Your task to perform on an android device: Go to privacy settings Image 0: 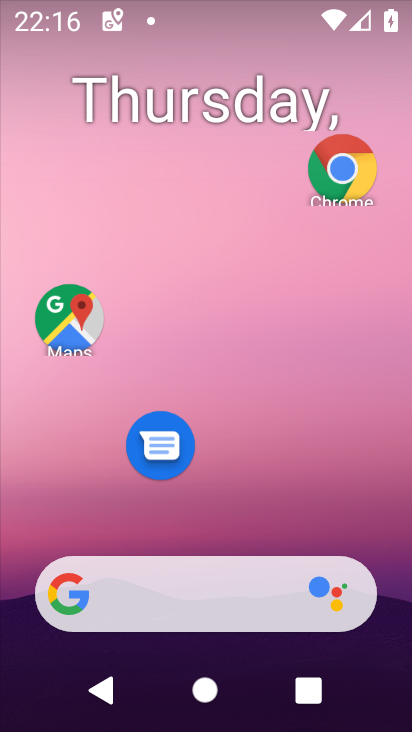
Step 0: drag from (217, 526) to (306, 46)
Your task to perform on an android device: Go to privacy settings Image 1: 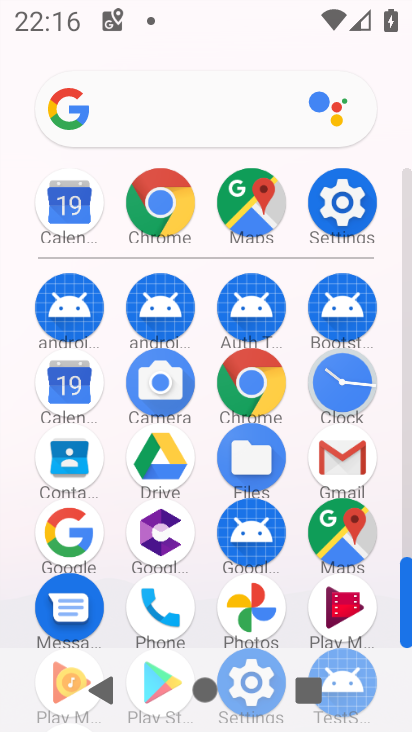
Step 1: click (318, 186)
Your task to perform on an android device: Go to privacy settings Image 2: 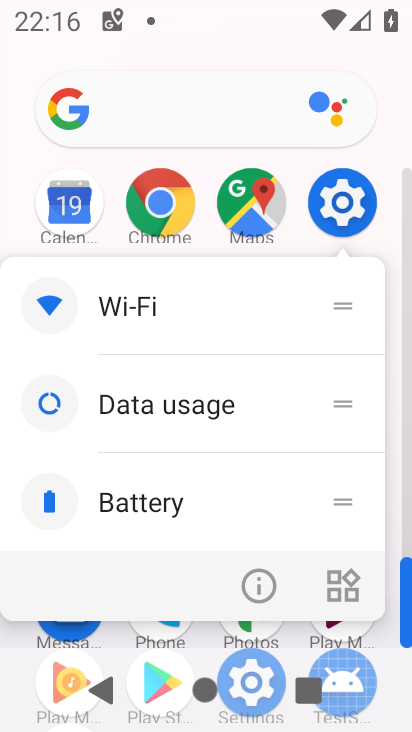
Step 2: click (257, 584)
Your task to perform on an android device: Go to privacy settings Image 3: 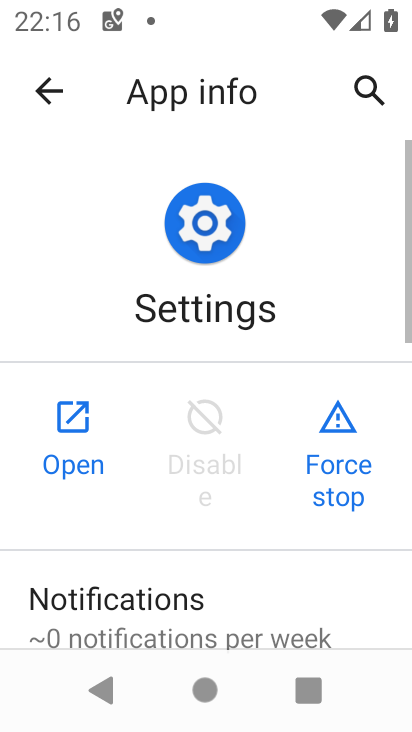
Step 3: click (81, 432)
Your task to perform on an android device: Go to privacy settings Image 4: 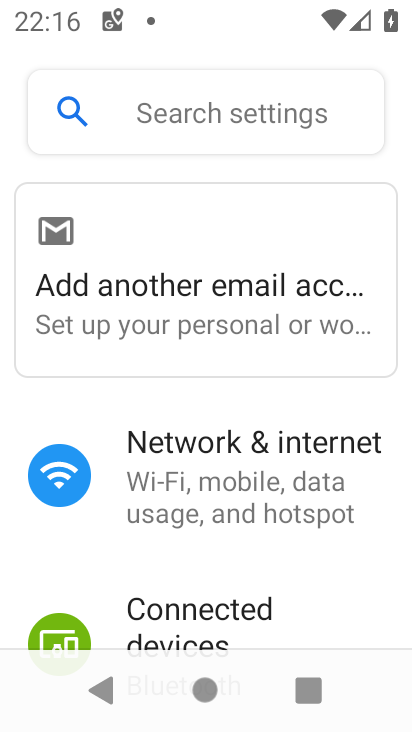
Step 4: drag from (227, 599) to (238, 15)
Your task to perform on an android device: Go to privacy settings Image 5: 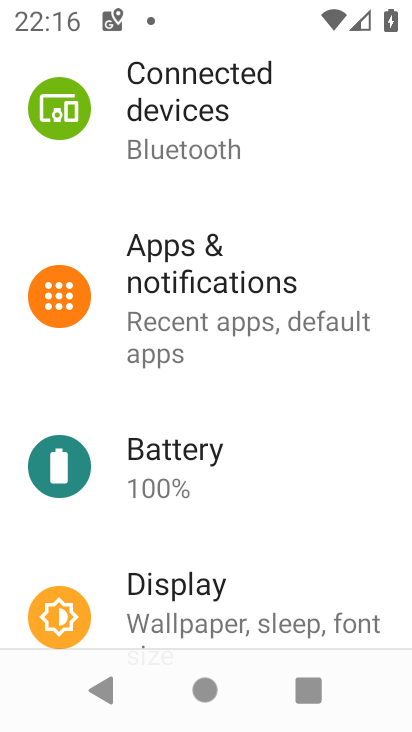
Step 5: drag from (212, 617) to (265, 42)
Your task to perform on an android device: Go to privacy settings Image 6: 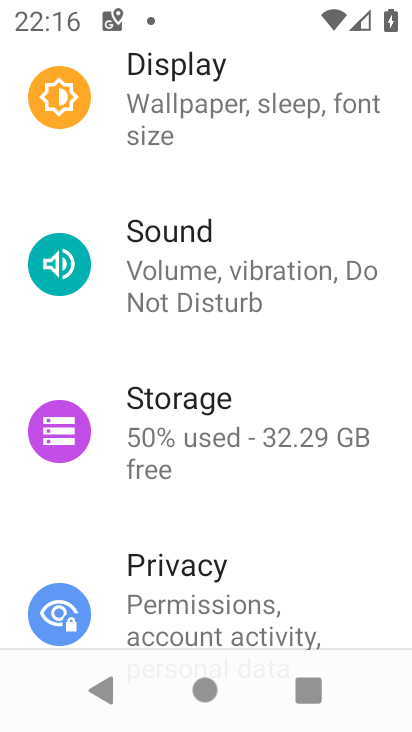
Step 6: drag from (263, 547) to (278, 287)
Your task to perform on an android device: Go to privacy settings Image 7: 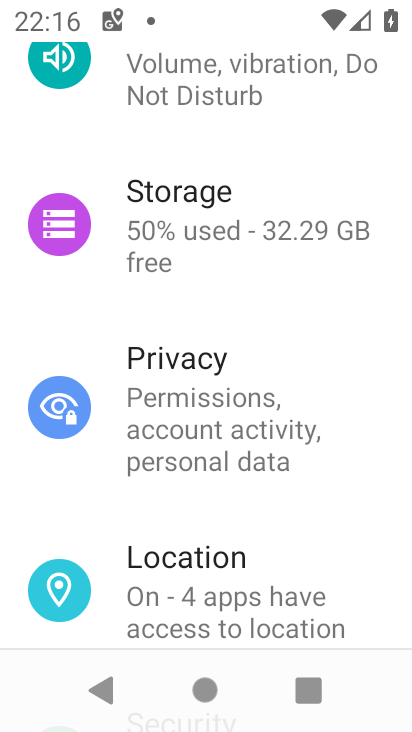
Step 7: click (199, 386)
Your task to perform on an android device: Go to privacy settings Image 8: 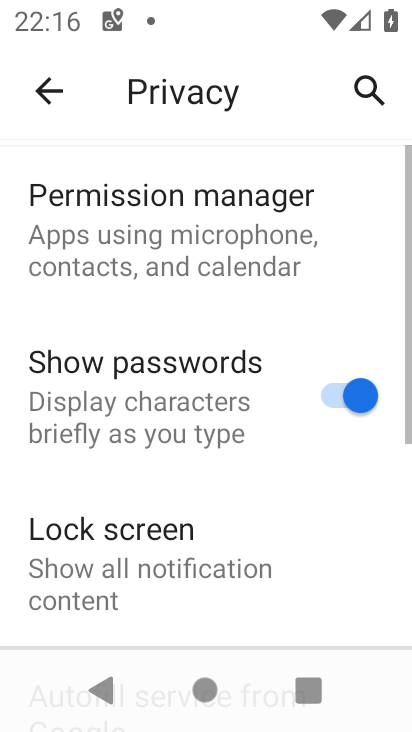
Step 8: task complete